Your task to perform on an android device: What is the news today? Image 0: 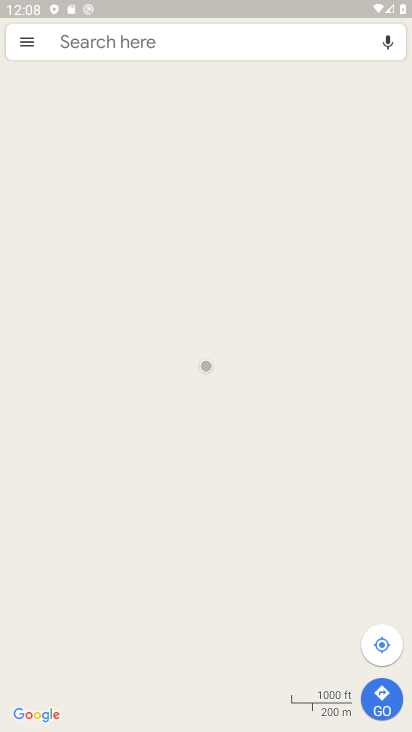
Step 0: press home button
Your task to perform on an android device: What is the news today? Image 1: 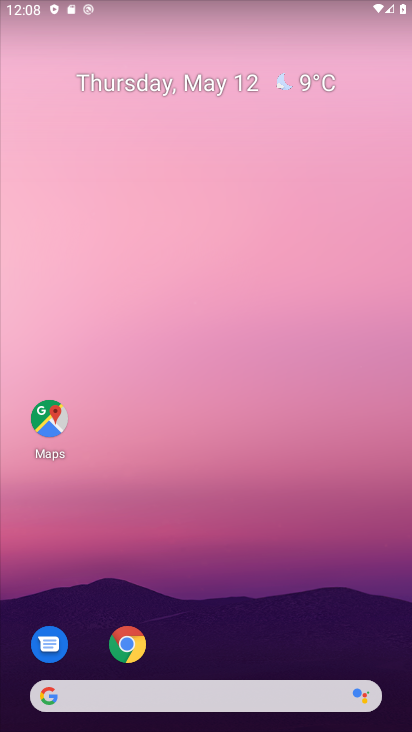
Step 1: click (4, 227)
Your task to perform on an android device: What is the news today? Image 2: 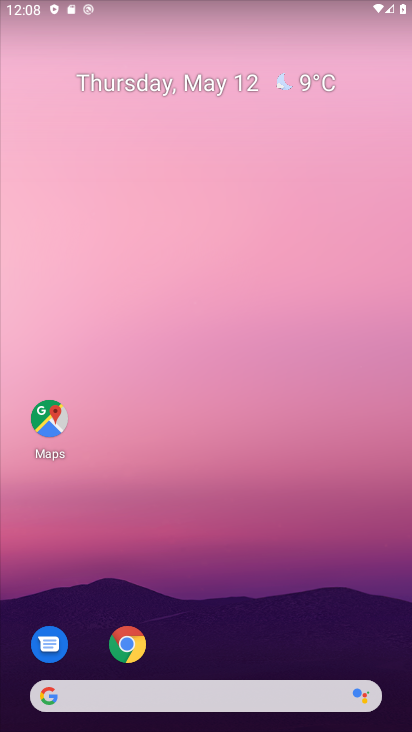
Step 2: task complete